Your task to perform on an android device: open sync settings in chrome Image 0: 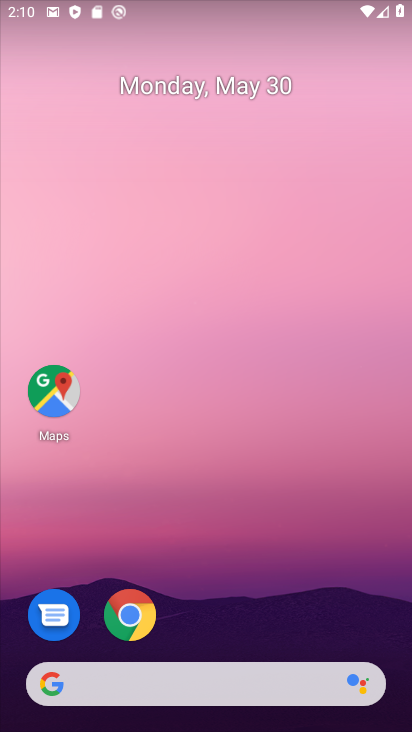
Step 0: click (144, 618)
Your task to perform on an android device: open sync settings in chrome Image 1: 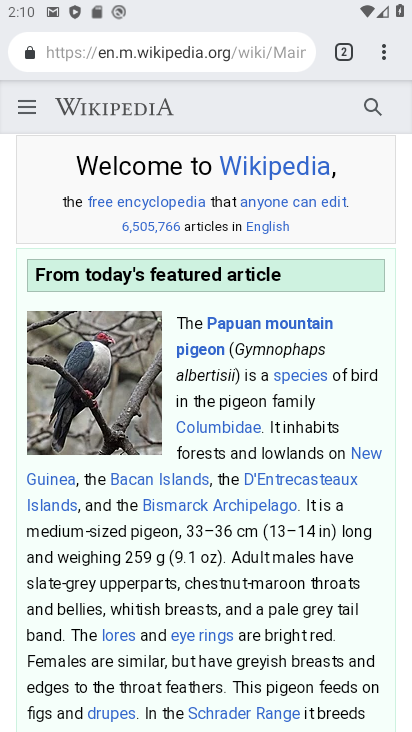
Step 1: click (364, 55)
Your task to perform on an android device: open sync settings in chrome Image 2: 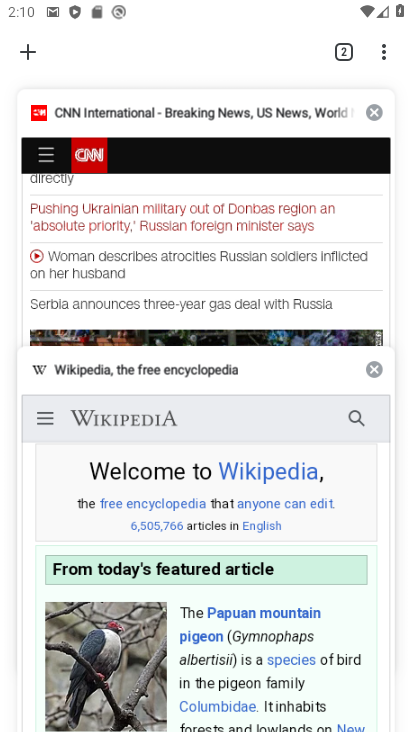
Step 2: click (378, 53)
Your task to perform on an android device: open sync settings in chrome Image 3: 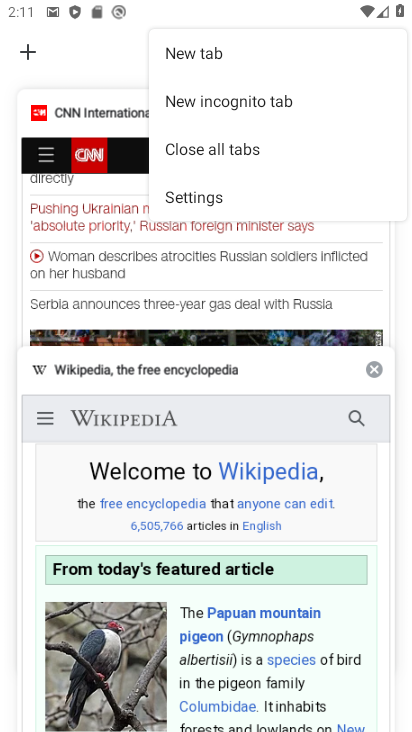
Step 3: click (269, 202)
Your task to perform on an android device: open sync settings in chrome Image 4: 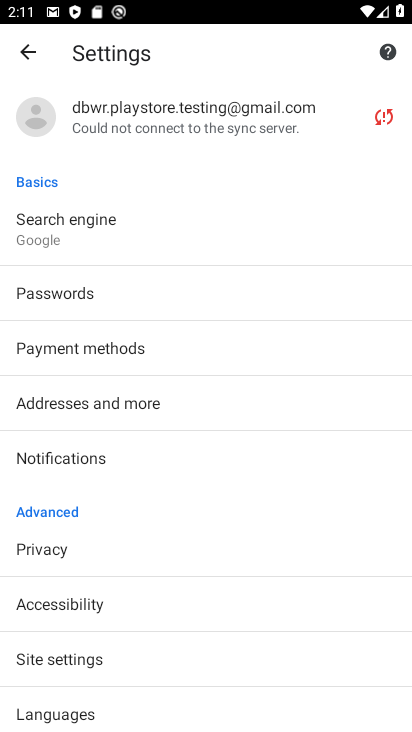
Step 4: click (239, 116)
Your task to perform on an android device: open sync settings in chrome Image 5: 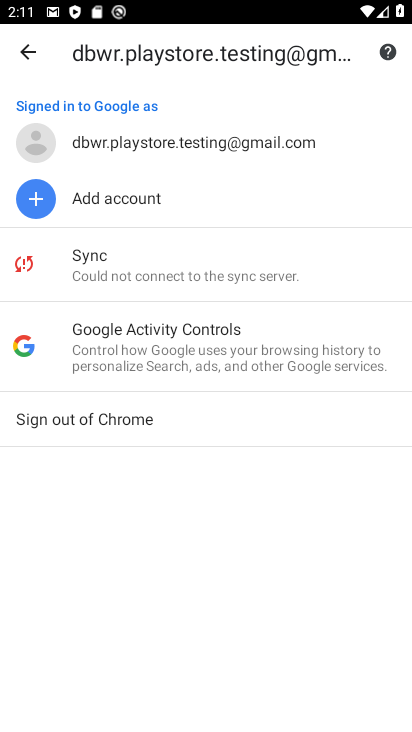
Step 5: click (236, 255)
Your task to perform on an android device: open sync settings in chrome Image 6: 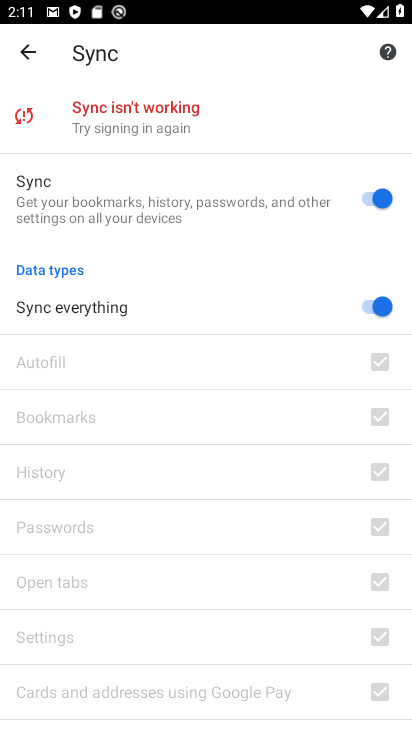
Step 6: task complete